Your task to perform on an android device: Go to accessibility settings Image 0: 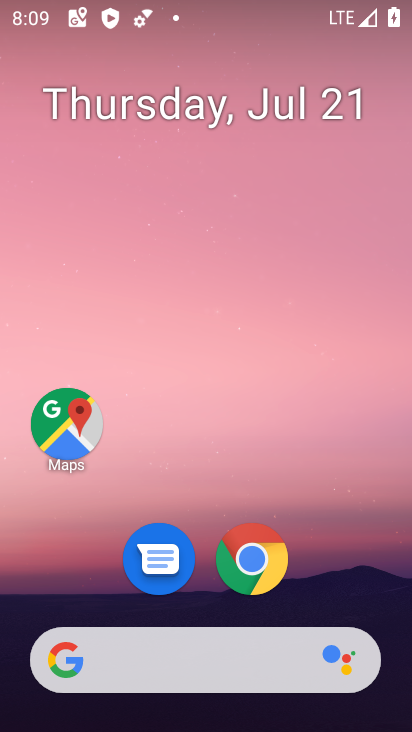
Step 0: drag from (246, 635) to (265, 192)
Your task to perform on an android device: Go to accessibility settings Image 1: 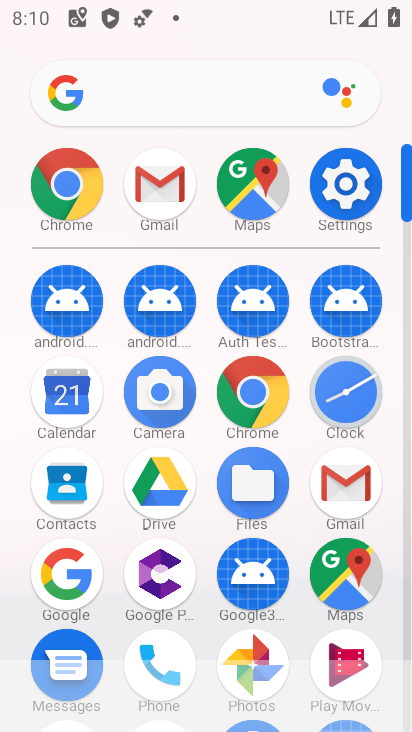
Step 1: click (350, 207)
Your task to perform on an android device: Go to accessibility settings Image 2: 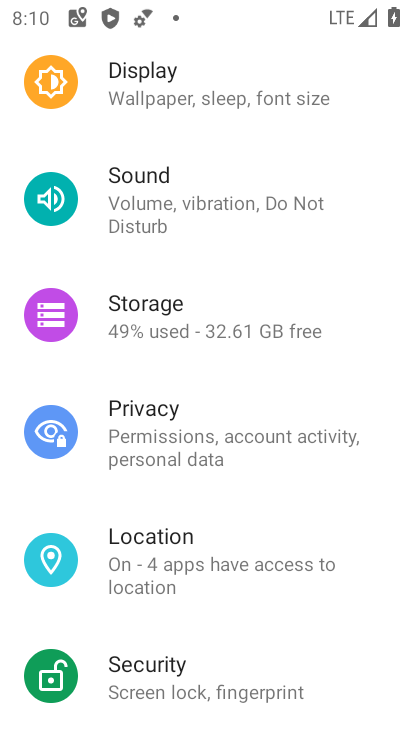
Step 2: drag from (200, 518) to (224, 270)
Your task to perform on an android device: Go to accessibility settings Image 3: 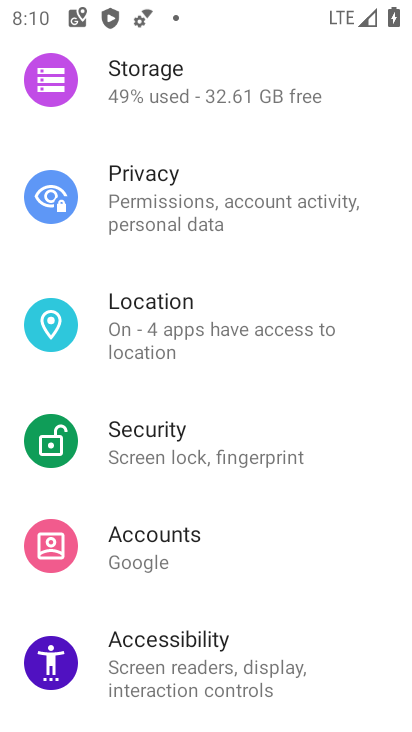
Step 3: click (187, 652)
Your task to perform on an android device: Go to accessibility settings Image 4: 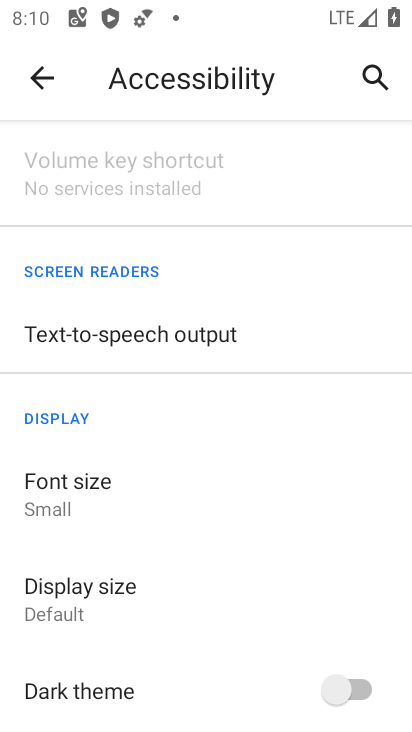
Step 4: task complete